Your task to perform on an android device: turn on the 24-hour format for clock Image 0: 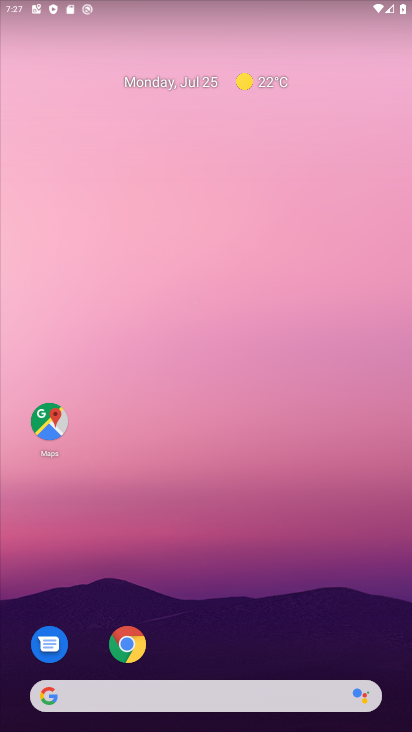
Step 0: press home button
Your task to perform on an android device: turn on the 24-hour format for clock Image 1: 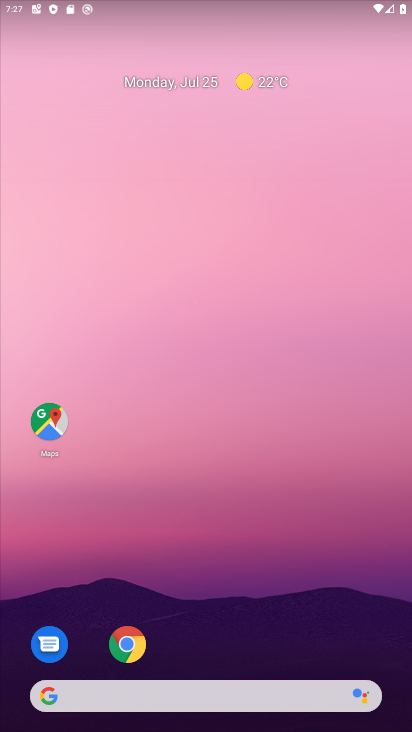
Step 1: drag from (223, 665) to (197, 12)
Your task to perform on an android device: turn on the 24-hour format for clock Image 2: 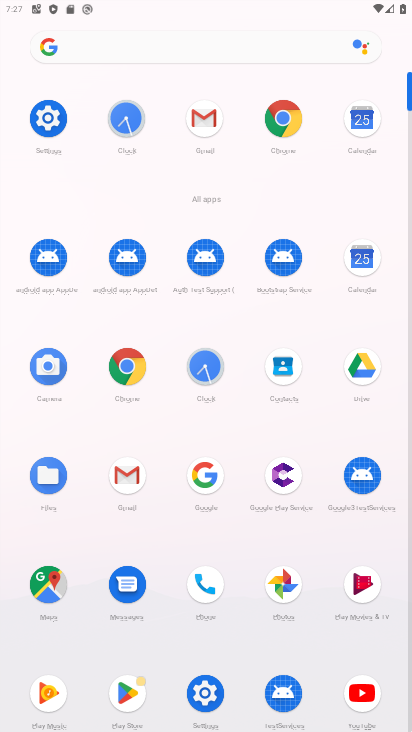
Step 2: click (201, 359)
Your task to perform on an android device: turn on the 24-hour format for clock Image 3: 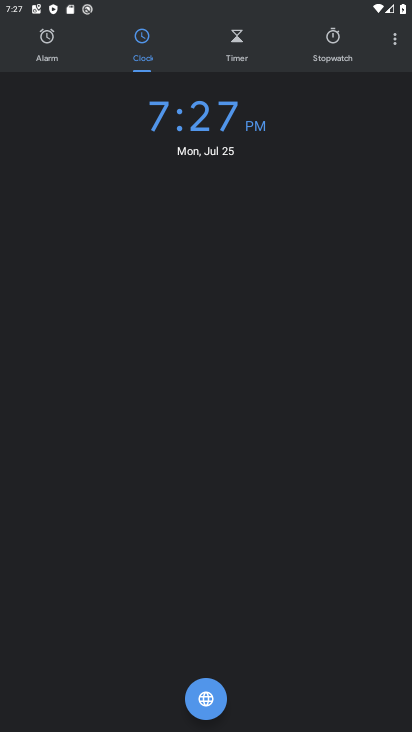
Step 3: click (394, 39)
Your task to perform on an android device: turn on the 24-hour format for clock Image 4: 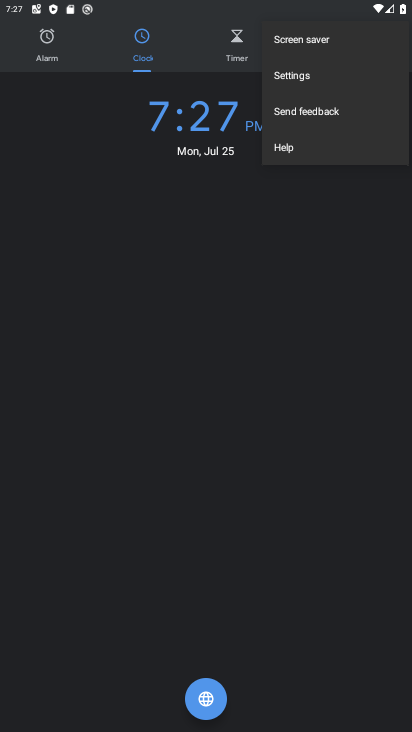
Step 4: click (316, 71)
Your task to perform on an android device: turn on the 24-hour format for clock Image 5: 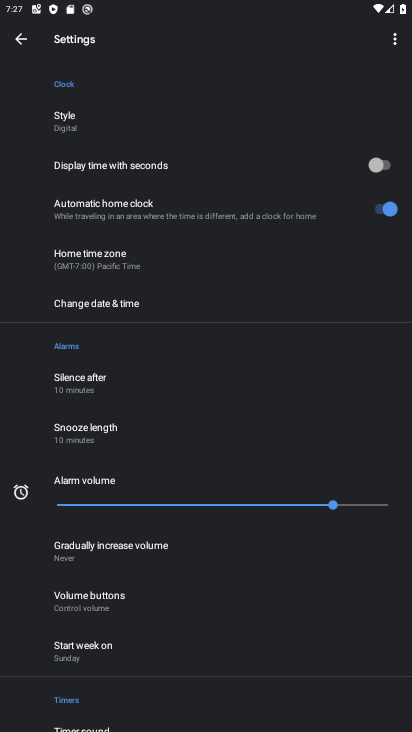
Step 5: click (151, 305)
Your task to perform on an android device: turn on the 24-hour format for clock Image 6: 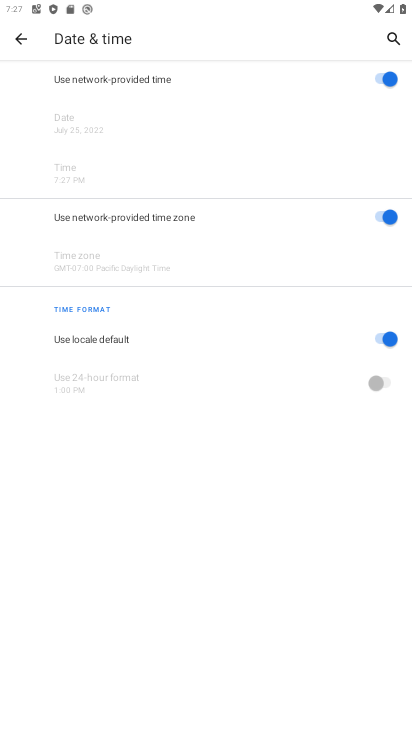
Step 6: click (383, 334)
Your task to perform on an android device: turn on the 24-hour format for clock Image 7: 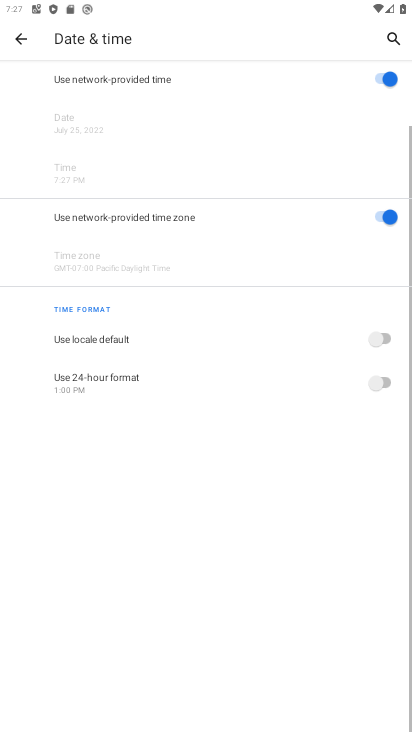
Step 7: click (382, 376)
Your task to perform on an android device: turn on the 24-hour format for clock Image 8: 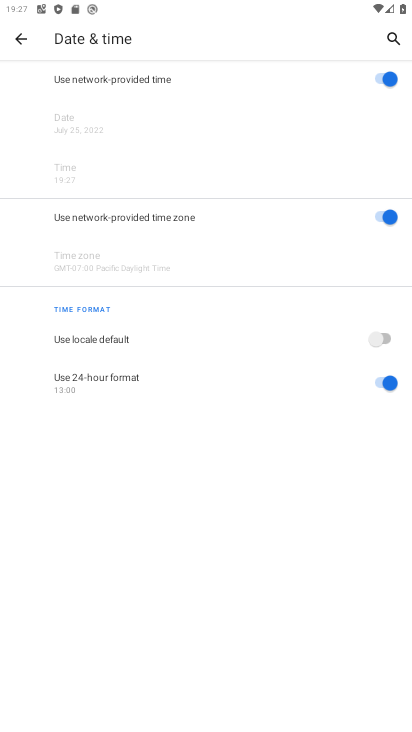
Step 8: task complete